Your task to perform on an android device: What is the recent news? Image 0: 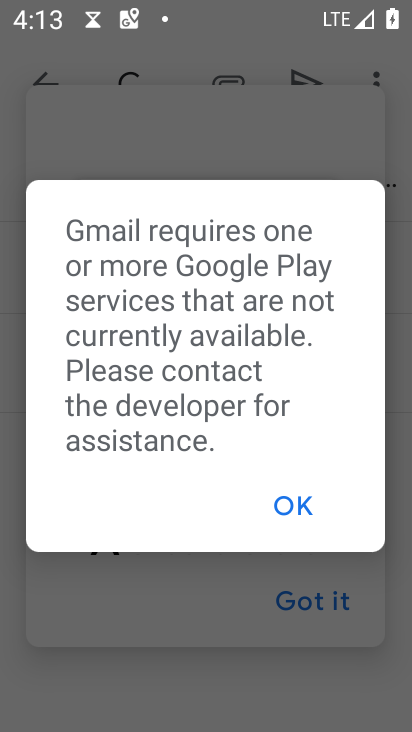
Step 0: press home button
Your task to perform on an android device: What is the recent news? Image 1: 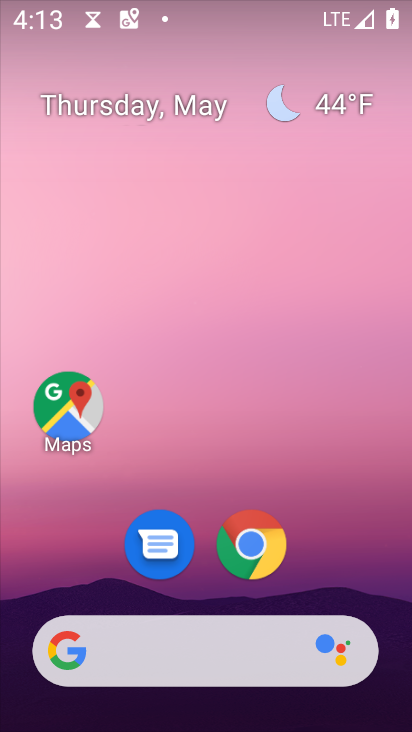
Step 1: click (191, 660)
Your task to perform on an android device: What is the recent news? Image 2: 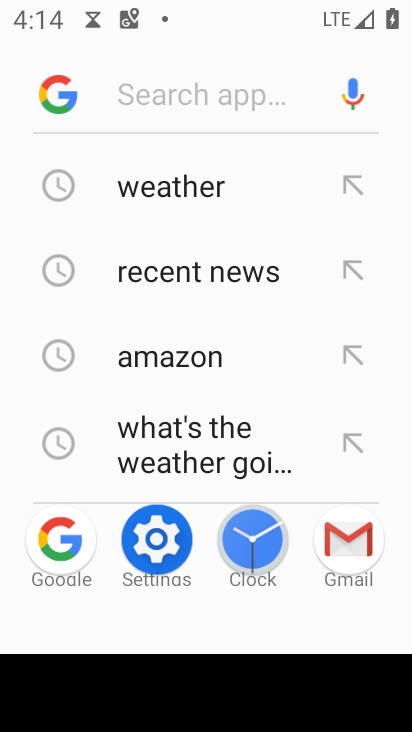
Step 2: type "what's the recent news"
Your task to perform on an android device: What is the recent news? Image 3: 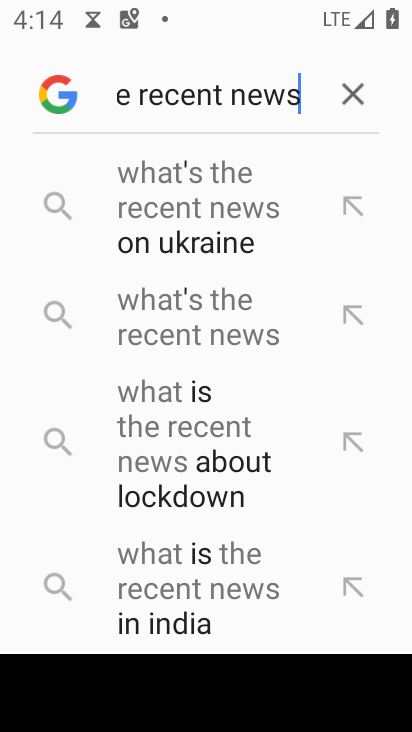
Step 3: click (191, 343)
Your task to perform on an android device: What is the recent news? Image 4: 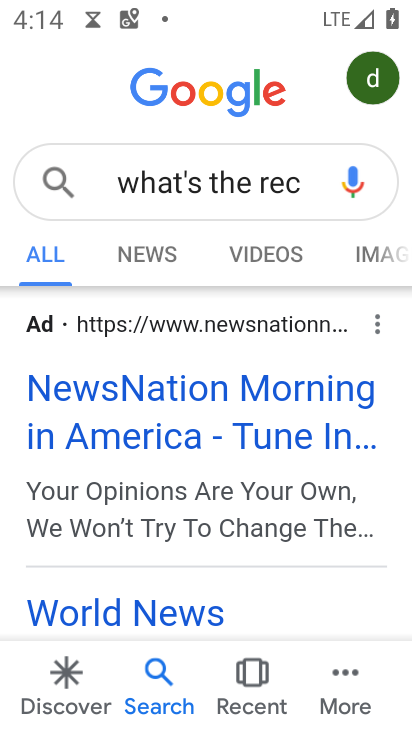
Step 4: click (147, 247)
Your task to perform on an android device: What is the recent news? Image 5: 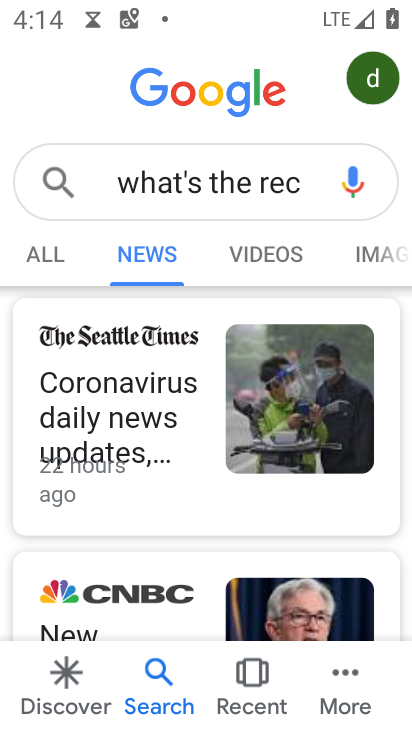
Step 5: task complete